Your task to perform on an android device: turn vacation reply on in the gmail app Image 0: 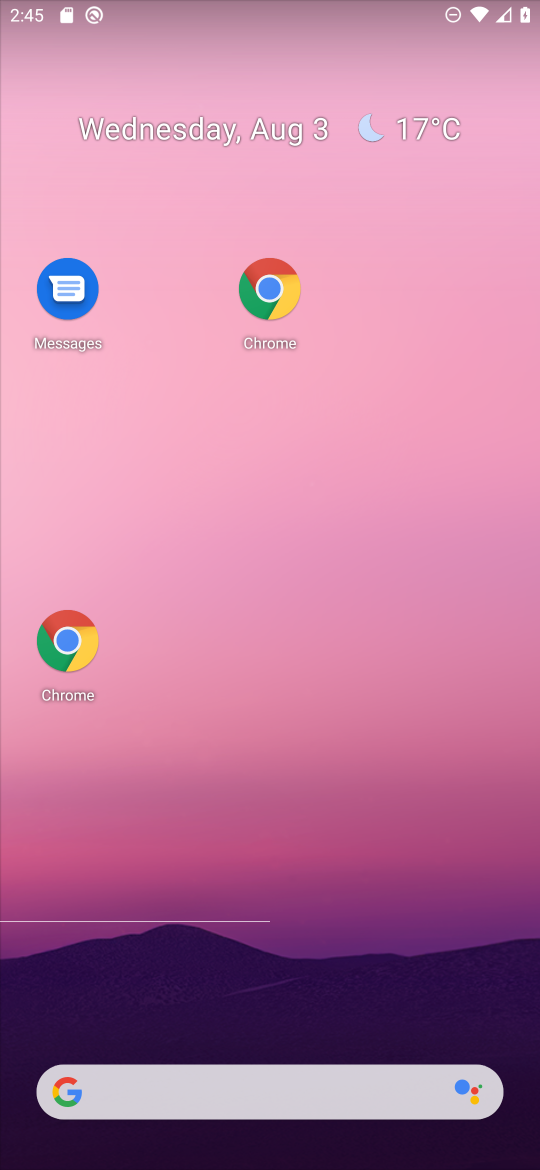
Step 0: drag from (375, 1024) to (201, 149)
Your task to perform on an android device: turn vacation reply on in the gmail app Image 1: 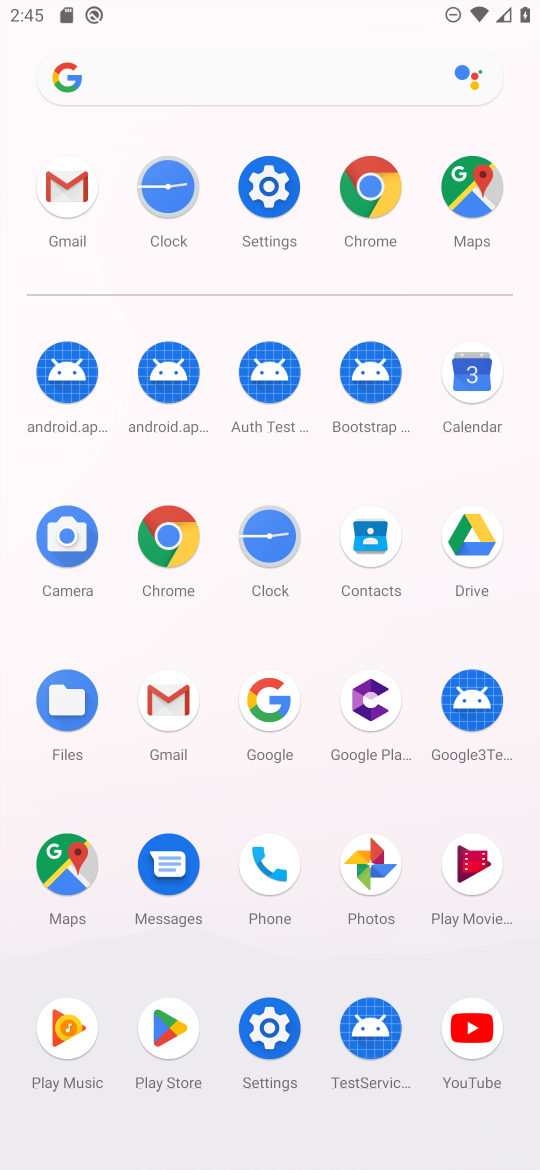
Step 1: click (46, 214)
Your task to perform on an android device: turn vacation reply on in the gmail app Image 2: 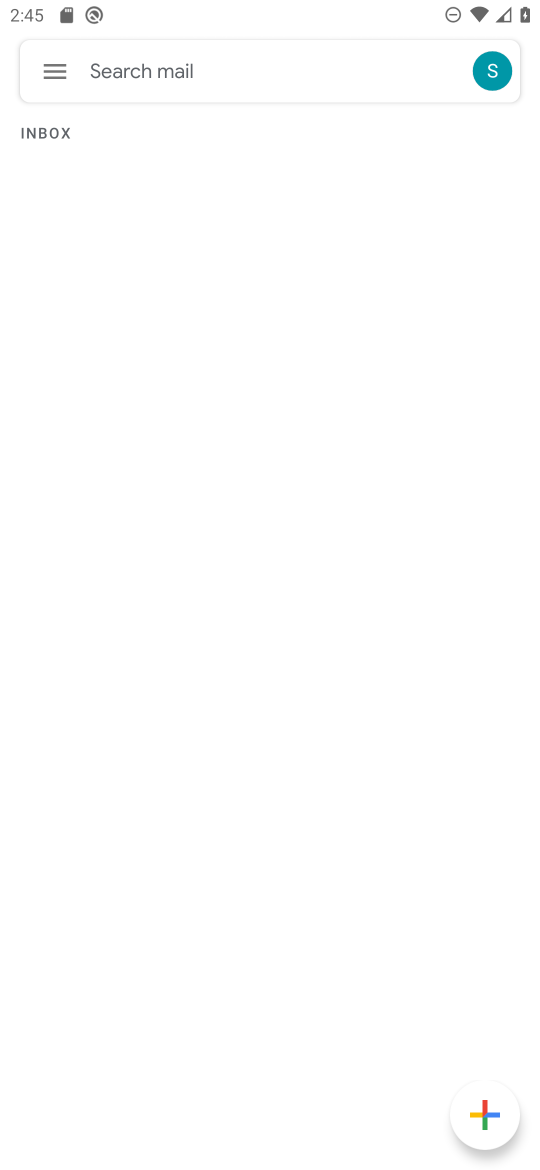
Step 2: click (26, 79)
Your task to perform on an android device: turn vacation reply on in the gmail app Image 3: 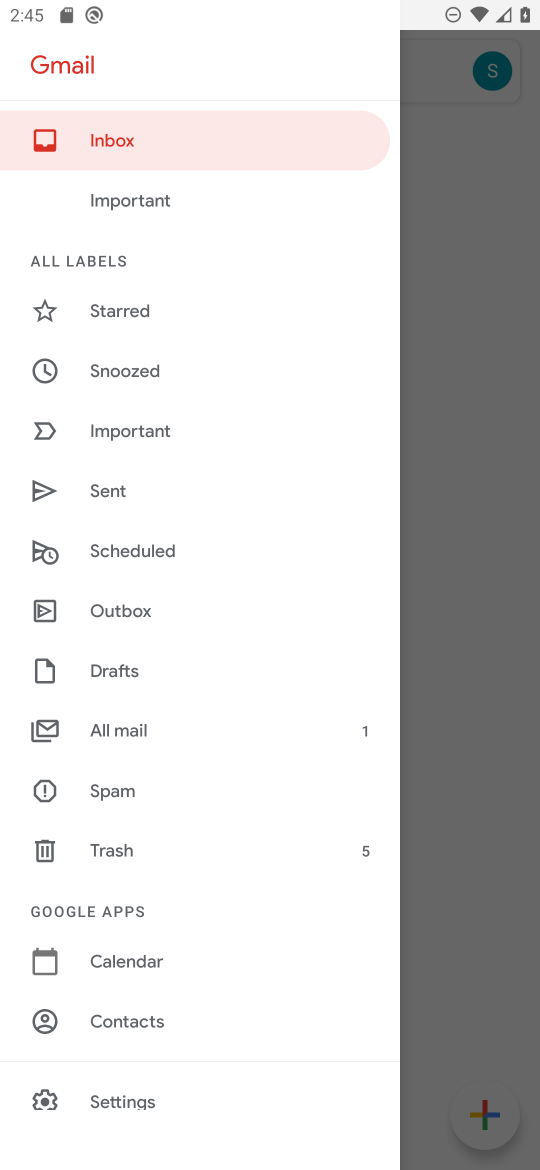
Step 3: click (152, 1125)
Your task to perform on an android device: turn vacation reply on in the gmail app Image 4: 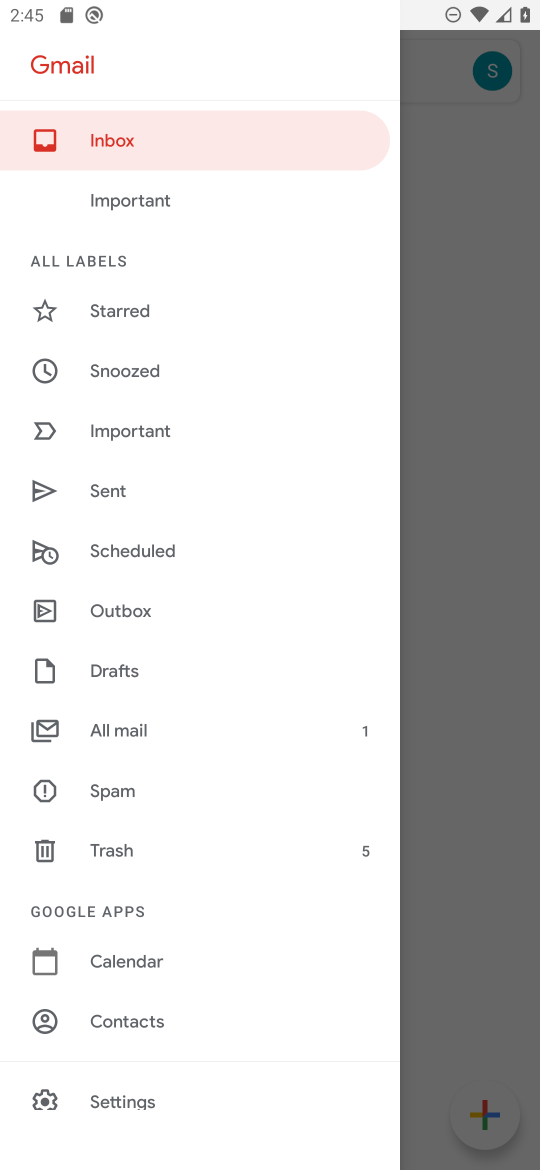
Step 4: click (131, 1107)
Your task to perform on an android device: turn vacation reply on in the gmail app Image 5: 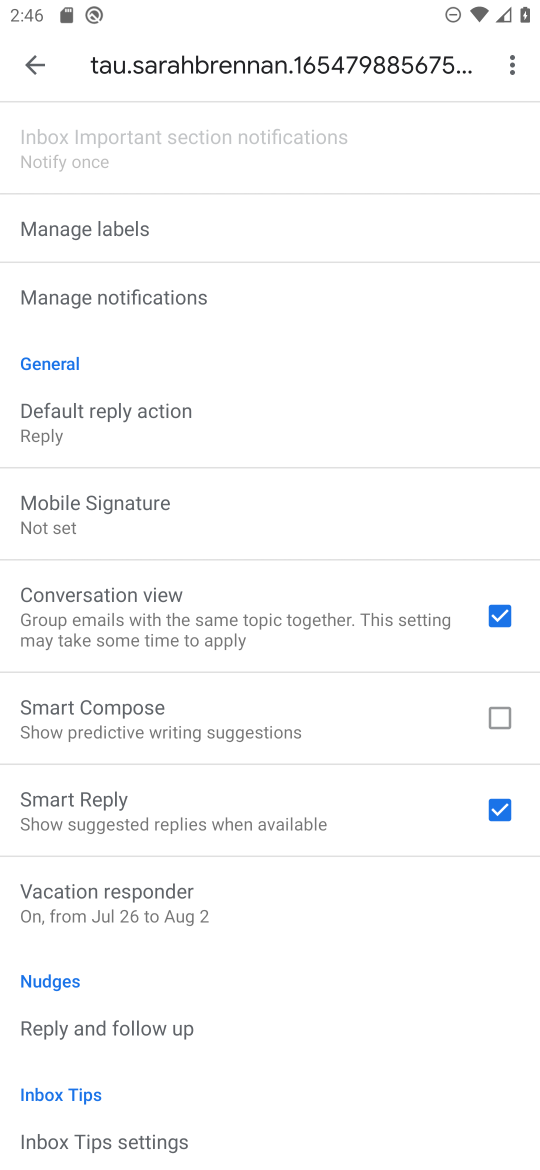
Step 5: click (146, 894)
Your task to perform on an android device: turn vacation reply on in the gmail app Image 6: 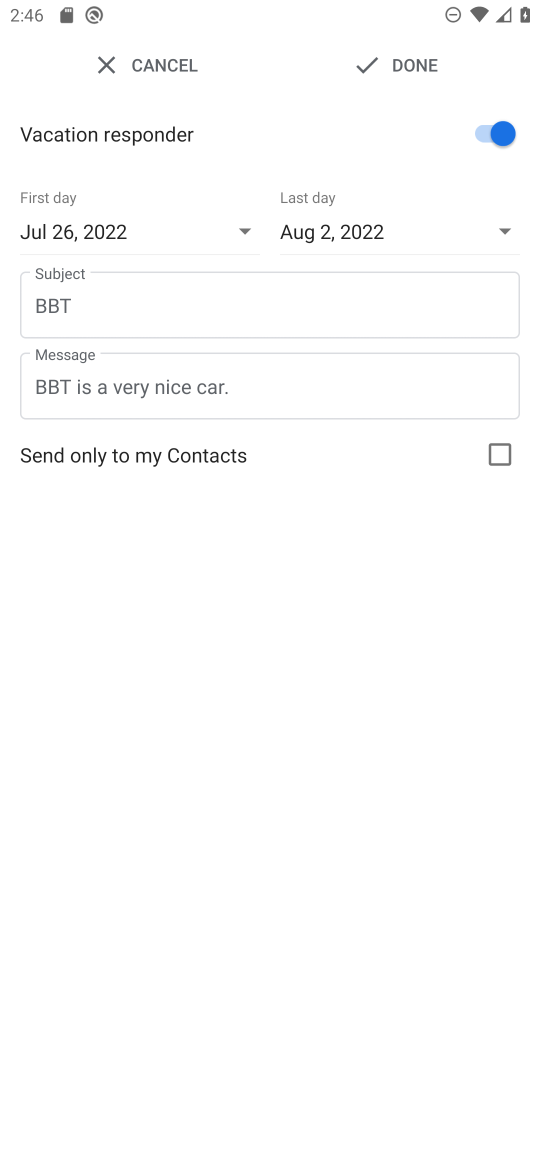
Step 6: click (479, 127)
Your task to perform on an android device: turn vacation reply on in the gmail app Image 7: 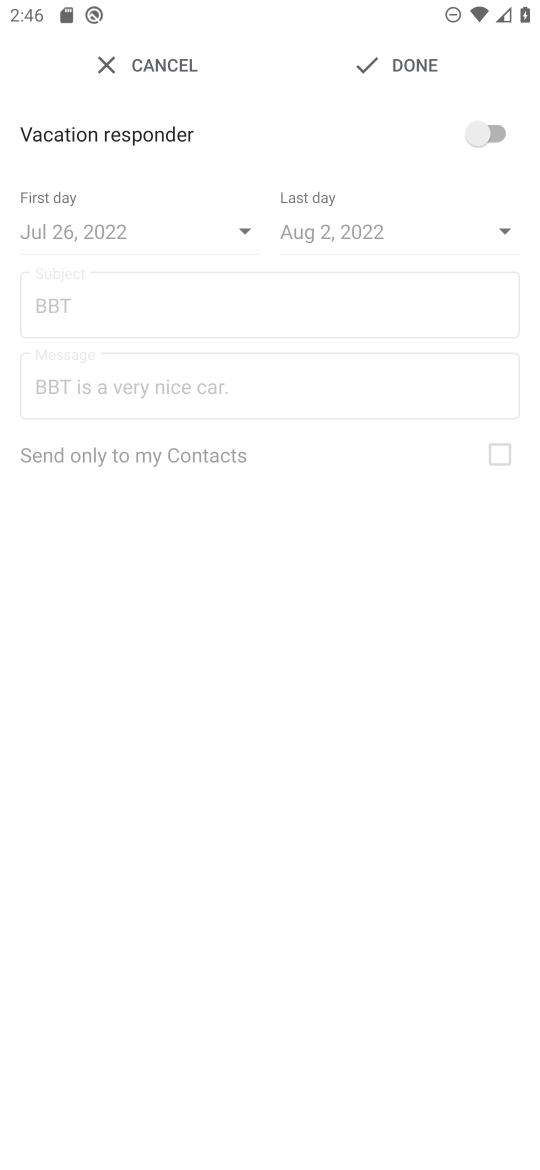
Step 7: task complete